Your task to perform on an android device: Open privacy settings Image 0: 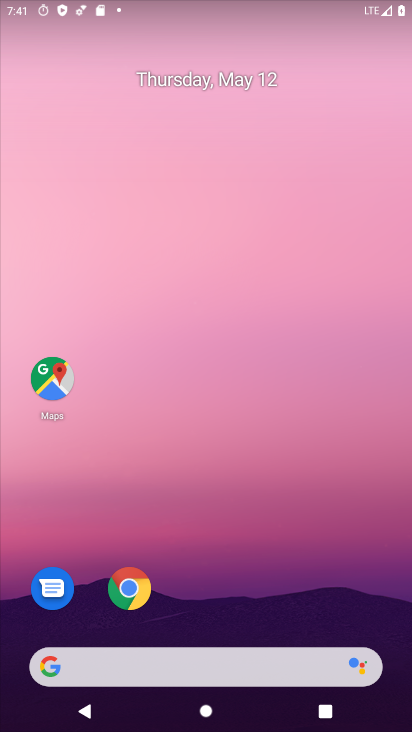
Step 0: drag from (240, 576) to (254, 92)
Your task to perform on an android device: Open privacy settings Image 1: 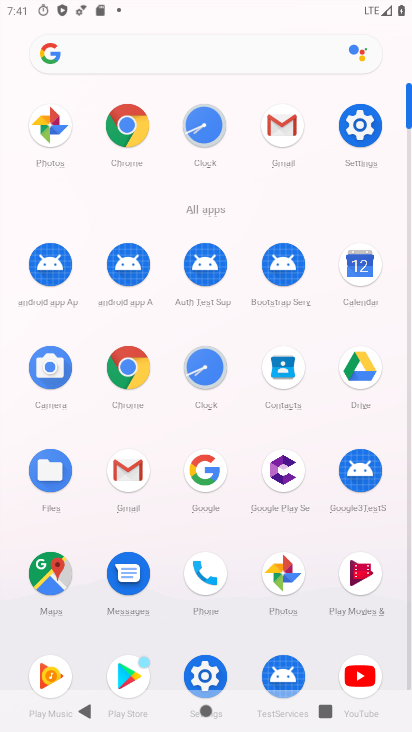
Step 1: click (350, 134)
Your task to perform on an android device: Open privacy settings Image 2: 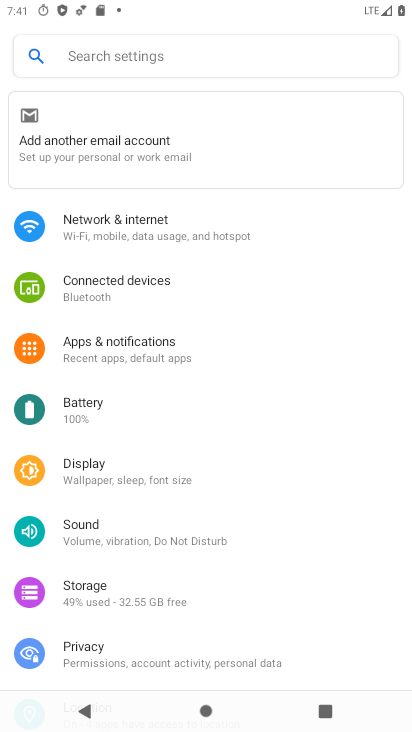
Step 2: click (151, 654)
Your task to perform on an android device: Open privacy settings Image 3: 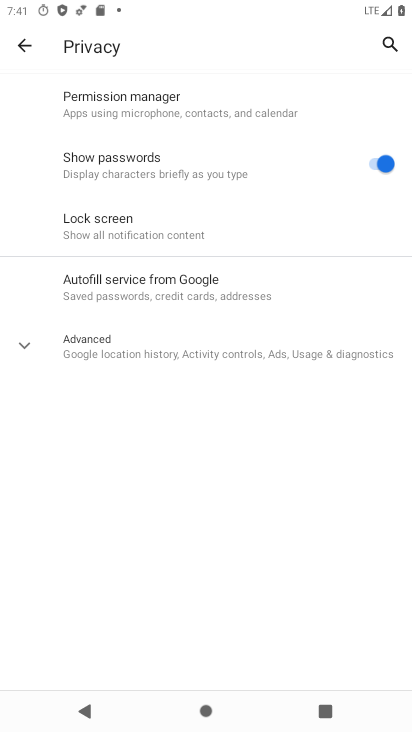
Step 3: task complete